Your task to perform on an android device: Open the calendar and show me this week's events? Image 0: 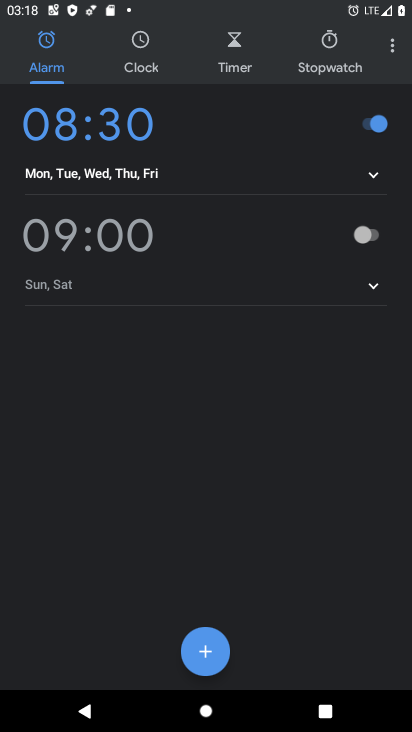
Step 0: press home button
Your task to perform on an android device: Open the calendar and show me this week's events? Image 1: 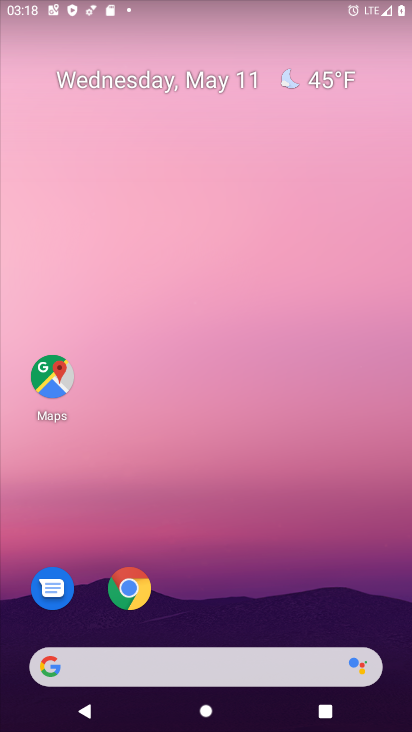
Step 1: drag from (255, 618) to (236, 241)
Your task to perform on an android device: Open the calendar and show me this week's events? Image 2: 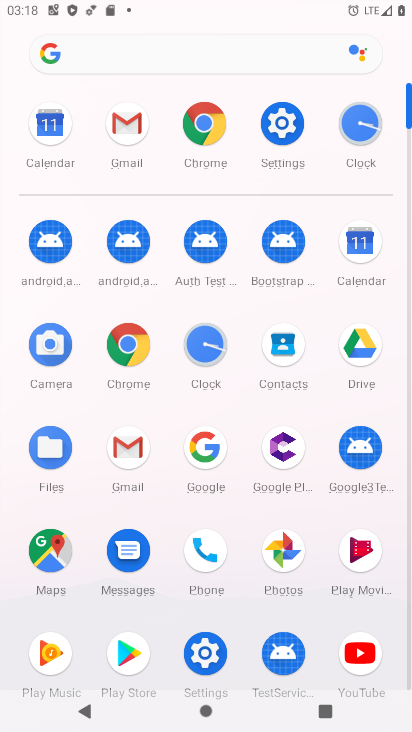
Step 2: click (354, 243)
Your task to perform on an android device: Open the calendar and show me this week's events? Image 3: 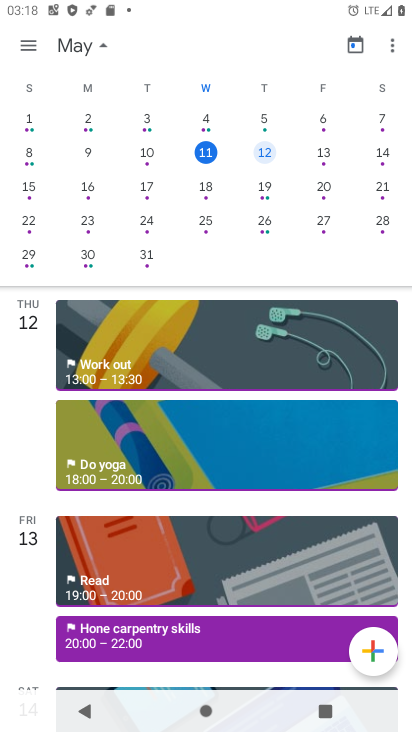
Step 3: click (278, 151)
Your task to perform on an android device: Open the calendar and show me this week's events? Image 4: 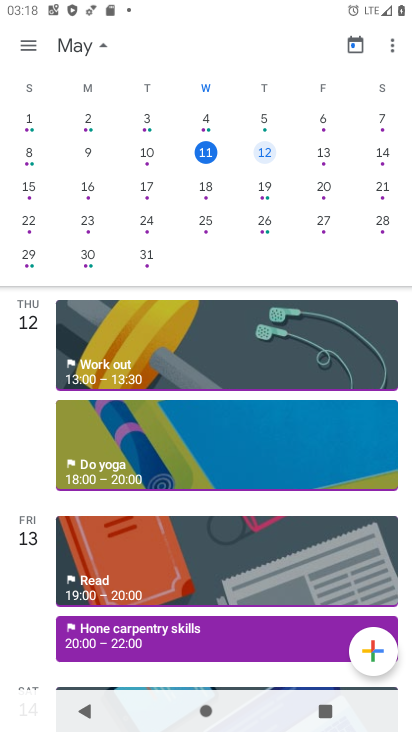
Step 4: click (333, 155)
Your task to perform on an android device: Open the calendar and show me this week's events? Image 5: 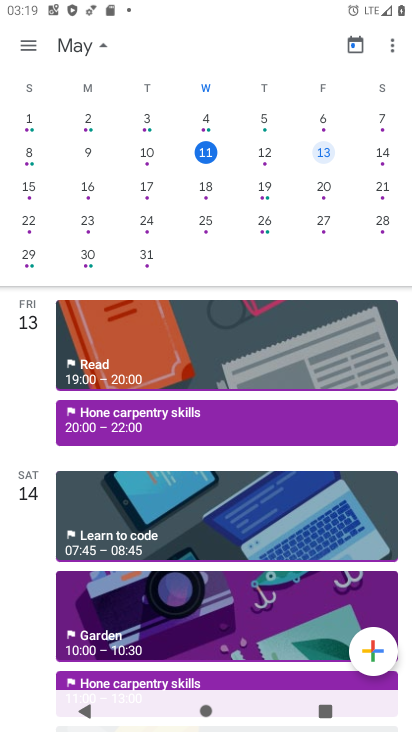
Step 5: task complete